Your task to perform on an android device: Clear the cart on bestbuy.com. Search for "usb-b" on bestbuy.com, select the first entry, add it to the cart, then select checkout. Image 0: 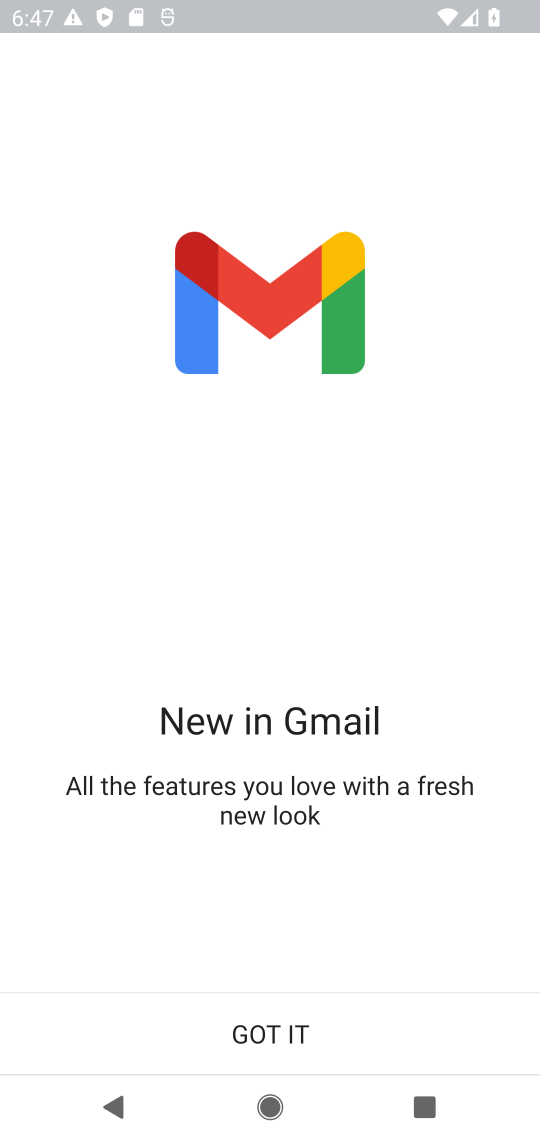
Step 0: press home button
Your task to perform on an android device: Clear the cart on bestbuy.com. Search for "usb-b" on bestbuy.com, select the first entry, add it to the cart, then select checkout. Image 1: 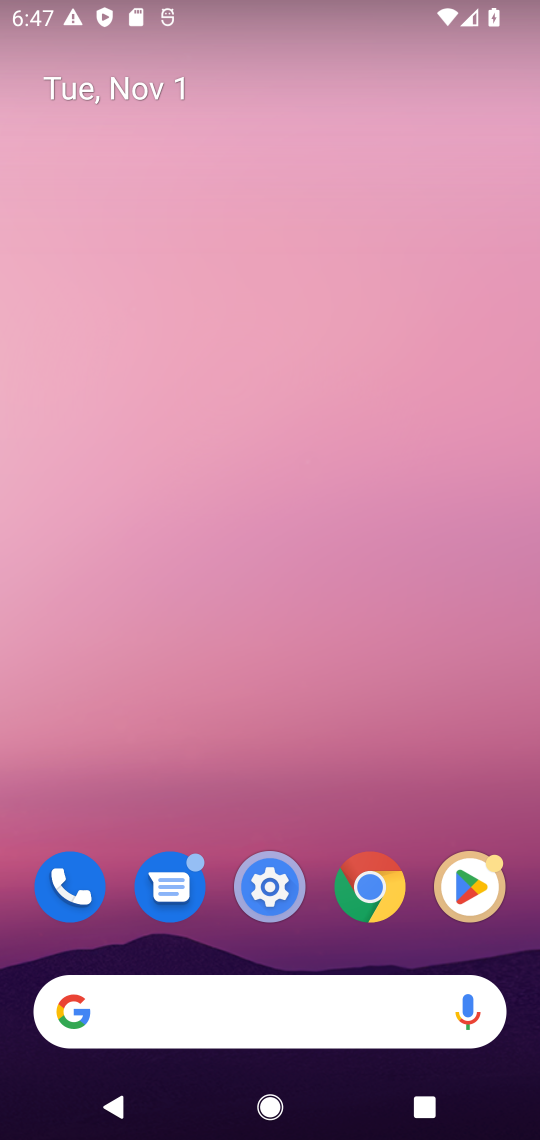
Step 1: drag from (260, 1002) to (255, 237)
Your task to perform on an android device: Clear the cart on bestbuy.com. Search for "usb-b" on bestbuy.com, select the first entry, add it to the cart, then select checkout. Image 2: 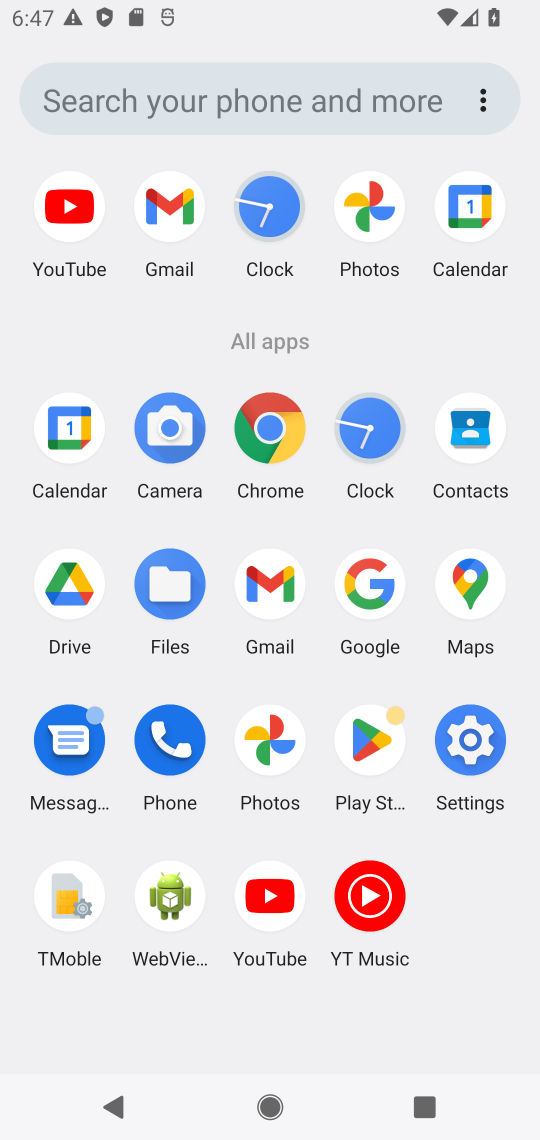
Step 2: click (367, 570)
Your task to perform on an android device: Clear the cart on bestbuy.com. Search for "usb-b" on bestbuy.com, select the first entry, add it to the cart, then select checkout. Image 3: 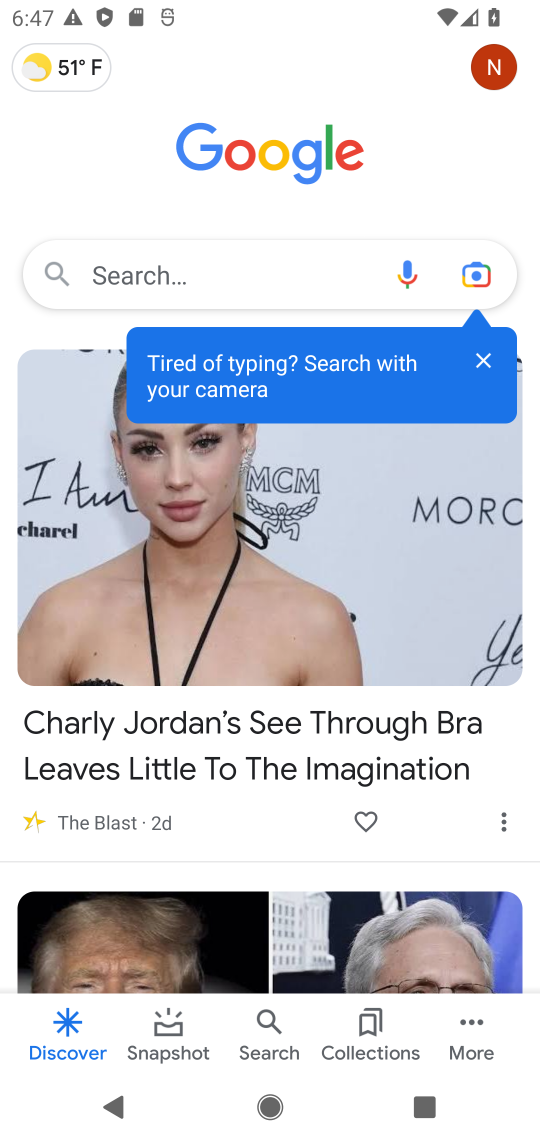
Step 3: click (223, 273)
Your task to perform on an android device: Clear the cart on bestbuy.com. Search for "usb-b" on bestbuy.com, select the first entry, add it to the cart, then select checkout. Image 4: 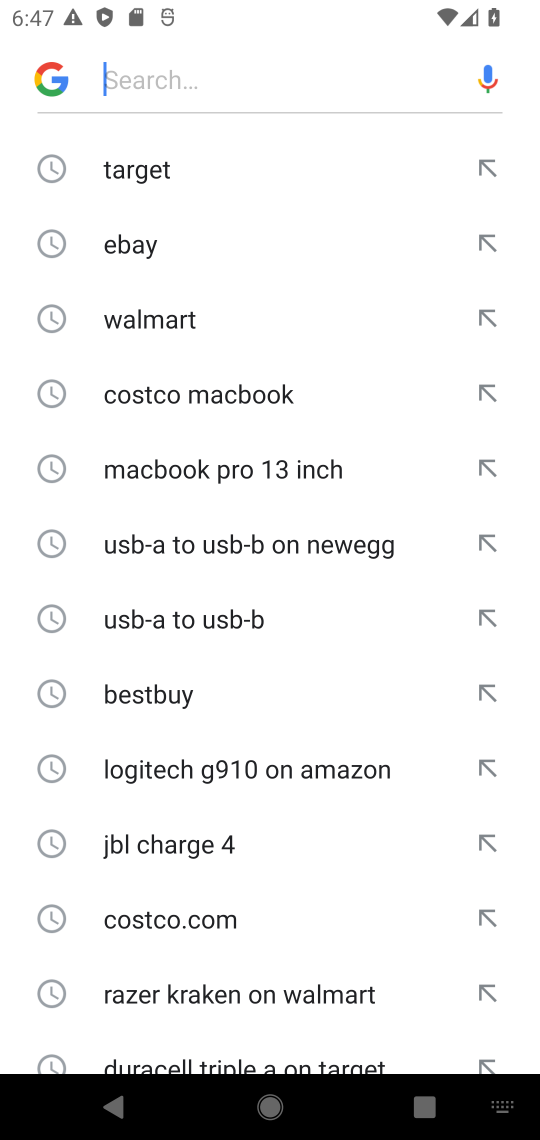
Step 4: type "bestbuy "
Your task to perform on an android device: Clear the cart on bestbuy.com. Search for "usb-b" on bestbuy.com, select the first entry, add it to the cart, then select checkout. Image 5: 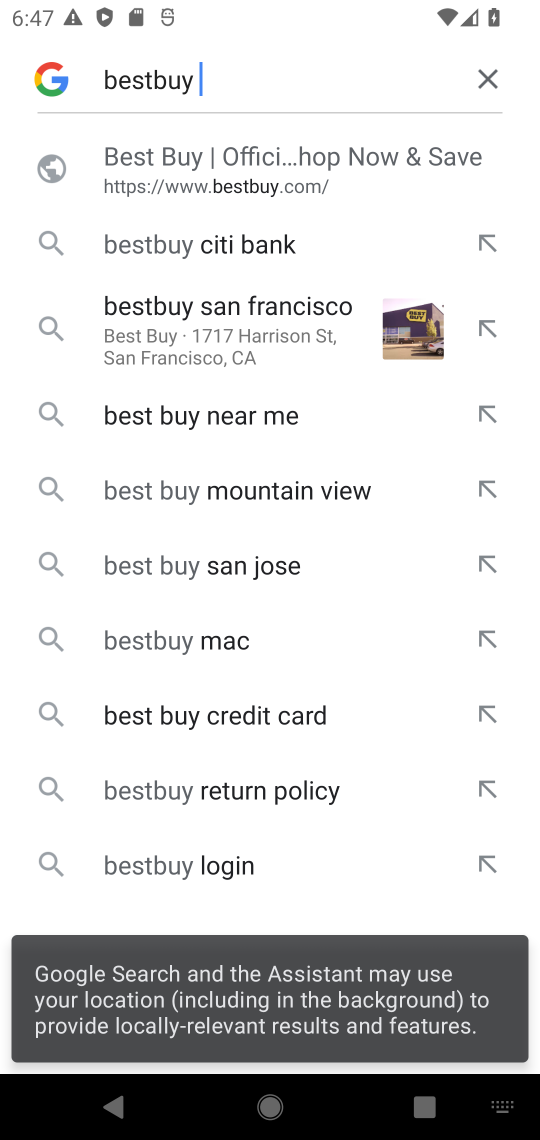
Step 5: click (215, 156)
Your task to perform on an android device: Clear the cart on bestbuy.com. Search for "usb-b" on bestbuy.com, select the first entry, add it to the cart, then select checkout. Image 6: 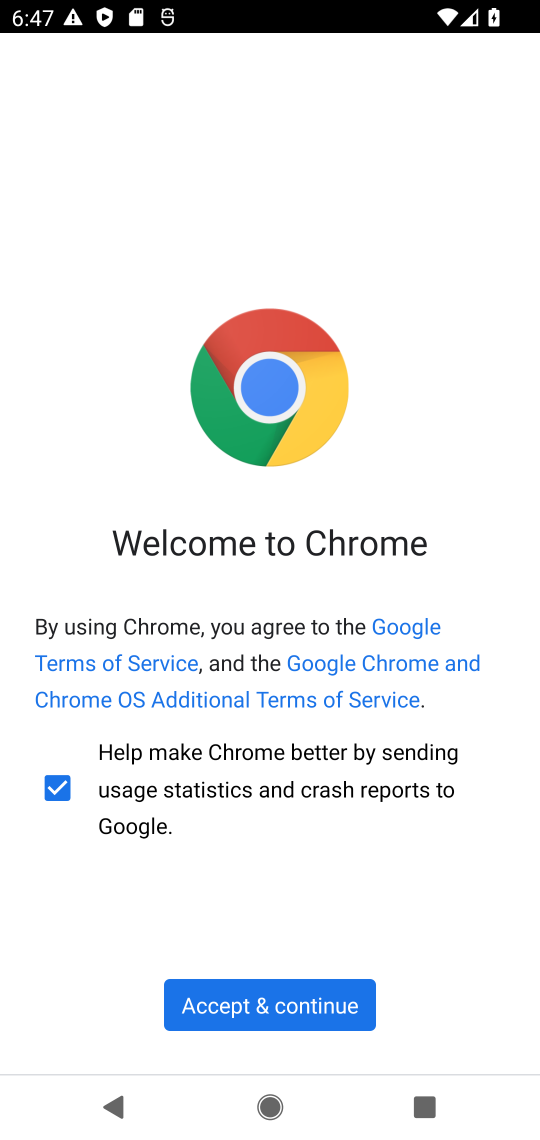
Step 6: click (301, 1009)
Your task to perform on an android device: Clear the cart on bestbuy.com. Search for "usb-b" on bestbuy.com, select the first entry, add it to the cart, then select checkout. Image 7: 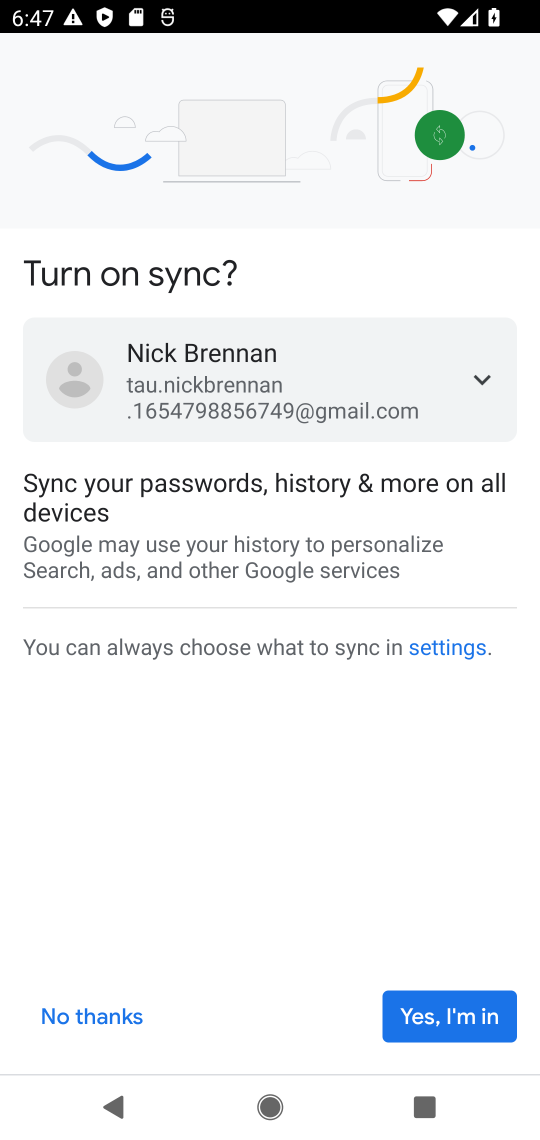
Step 7: click (96, 1026)
Your task to perform on an android device: Clear the cart on bestbuy.com. Search for "usb-b" on bestbuy.com, select the first entry, add it to the cart, then select checkout. Image 8: 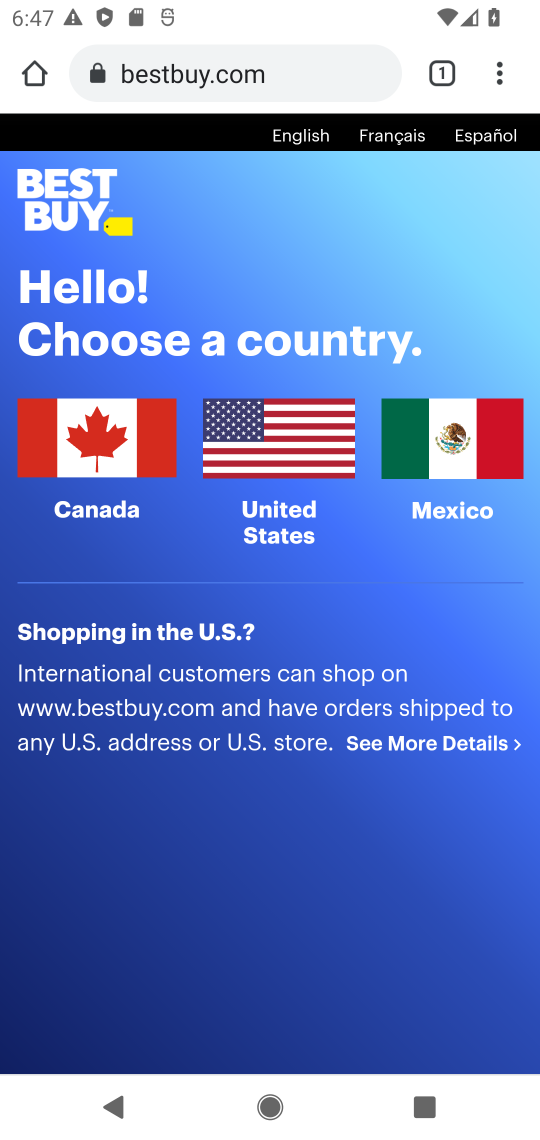
Step 8: click (287, 407)
Your task to perform on an android device: Clear the cart on bestbuy.com. Search for "usb-b" on bestbuy.com, select the first entry, add it to the cart, then select checkout. Image 9: 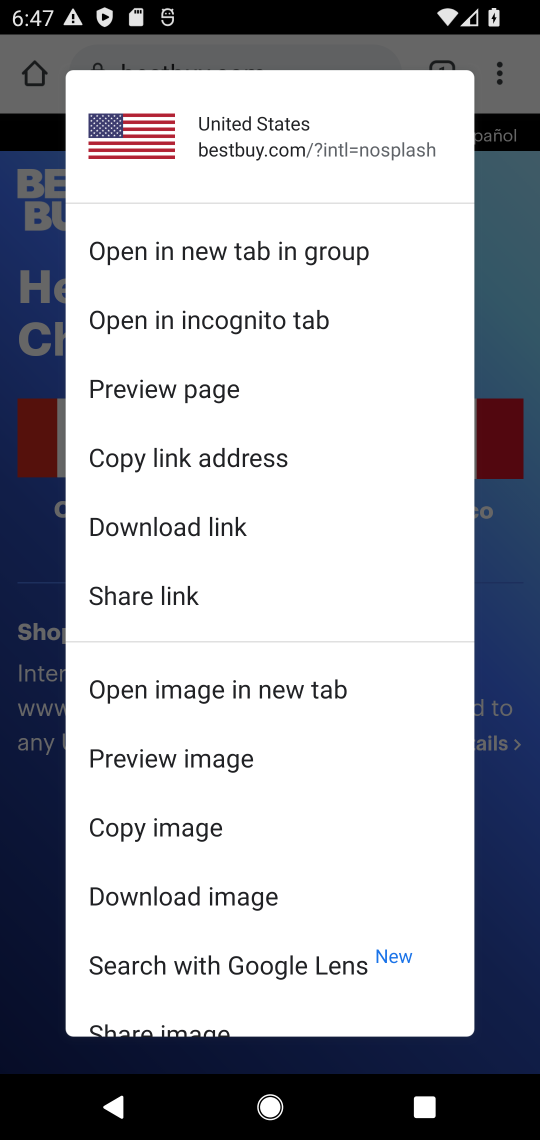
Step 9: click (503, 385)
Your task to perform on an android device: Clear the cart on bestbuy.com. Search for "usb-b" on bestbuy.com, select the first entry, add it to the cart, then select checkout. Image 10: 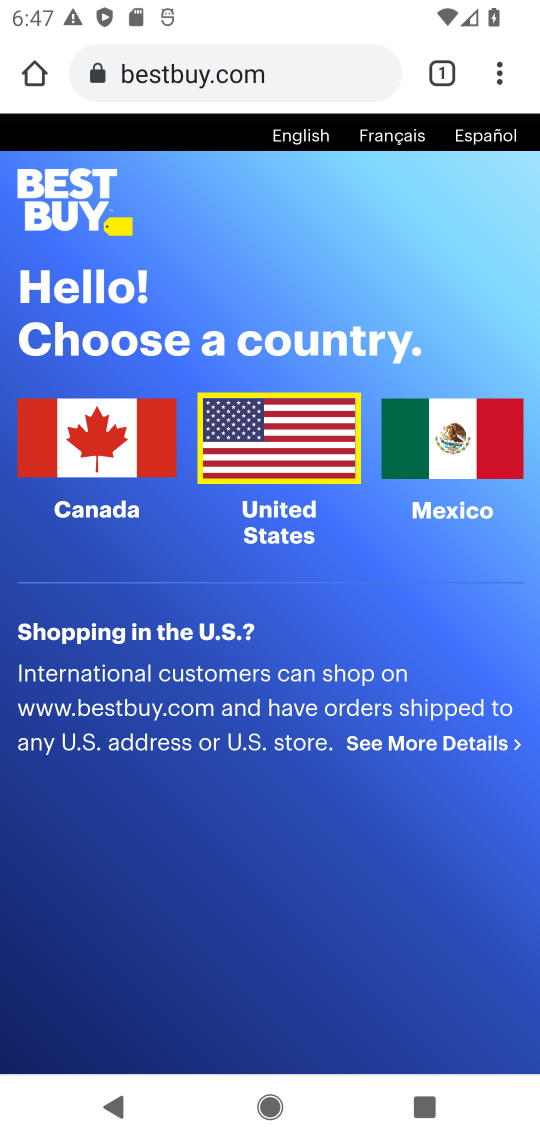
Step 10: click (272, 467)
Your task to perform on an android device: Clear the cart on bestbuy.com. Search for "usb-b" on bestbuy.com, select the first entry, add it to the cart, then select checkout. Image 11: 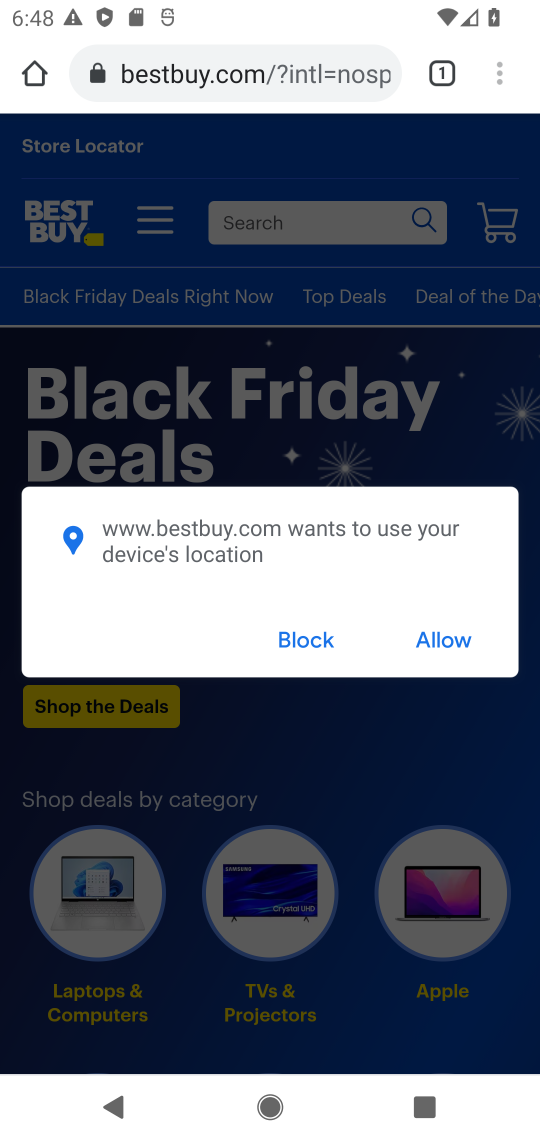
Step 11: click (431, 618)
Your task to perform on an android device: Clear the cart on bestbuy.com. Search for "usb-b" on bestbuy.com, select the first entry, add it to the cart, then select checkout. Image 12: 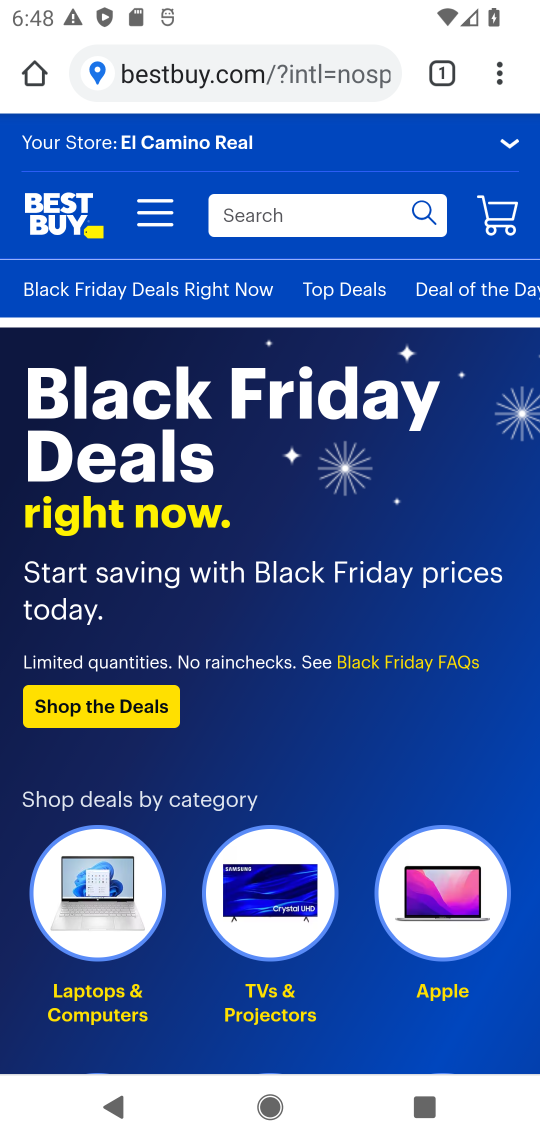
Step 12: click (254, 211)
Your task to perform on an android device: Clear the cart on bestbuy.com. Search for "usb-b" on bestbuy.com, select the first entry, add it to the cart, then select checkout. Image 13: 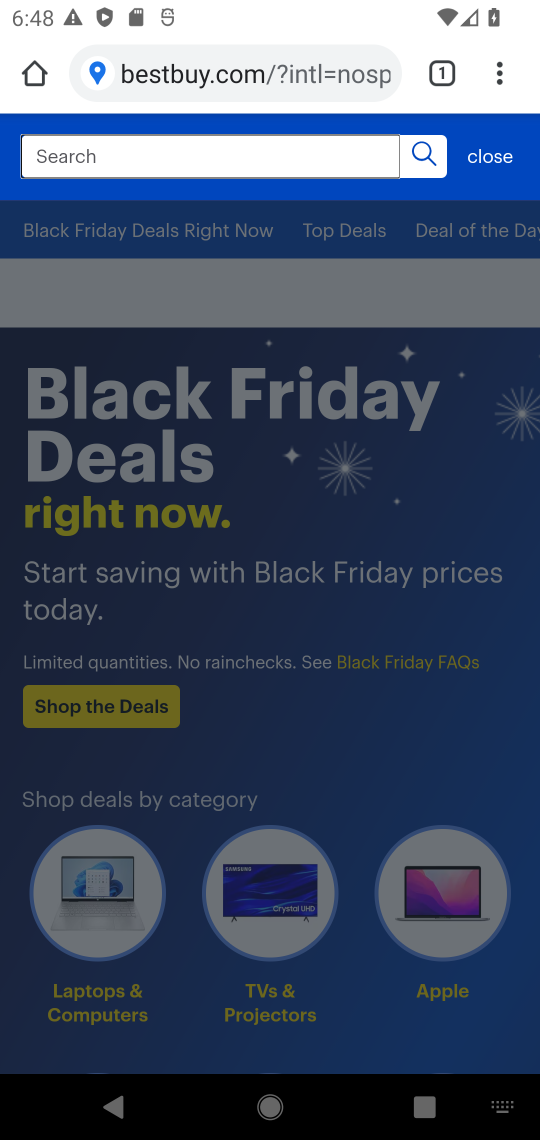
Step 13: type ""usb-b" "
Your task to perform on an android device: Clear the cart on bestbuy.com. Search for "usb-b" on bestbuy.com, select the first entry, add it to the cart, then select checkout. Image 14: 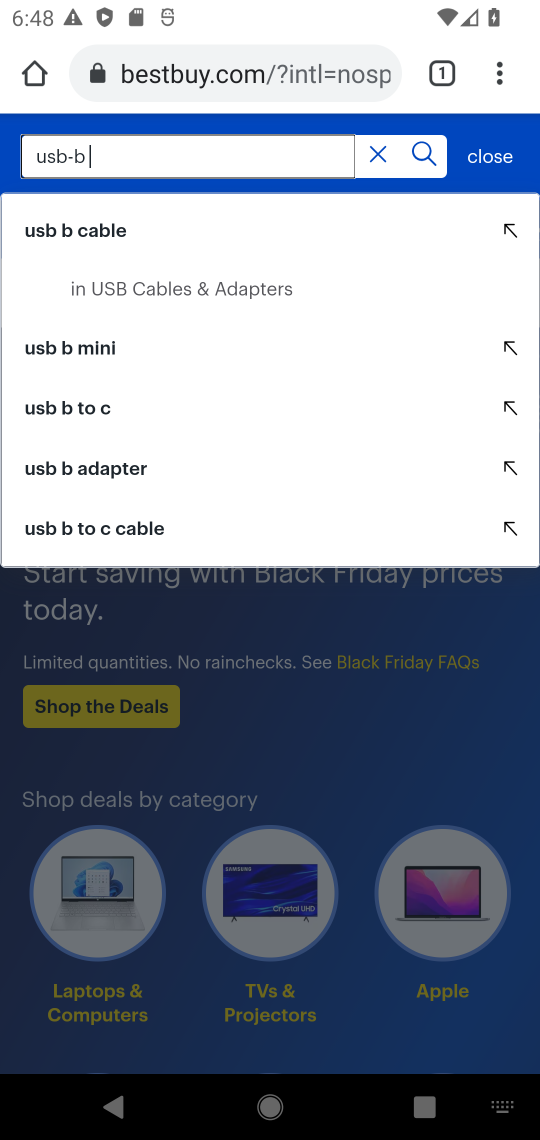
Step 14: click (87, 229)
Your task to perform on an android device: Clear the cart on bestbuy.com. Search for "usb-b" on bestbuy.com, select the first entry, add it to the cart, then select checkout. Image 15: 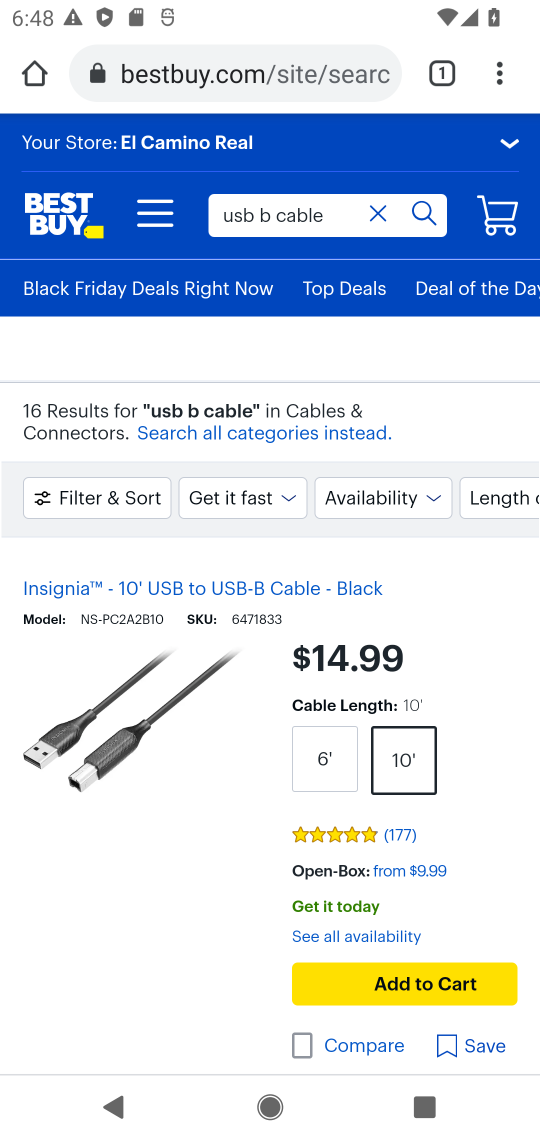
Step 15: click (422, 980)
Your task to perform on an android device: Clear the cart on bestbuy.com. Search for "usb-b" on bestbuy.com, select the first entry, add it to the cart, then select checkout. Image 16: 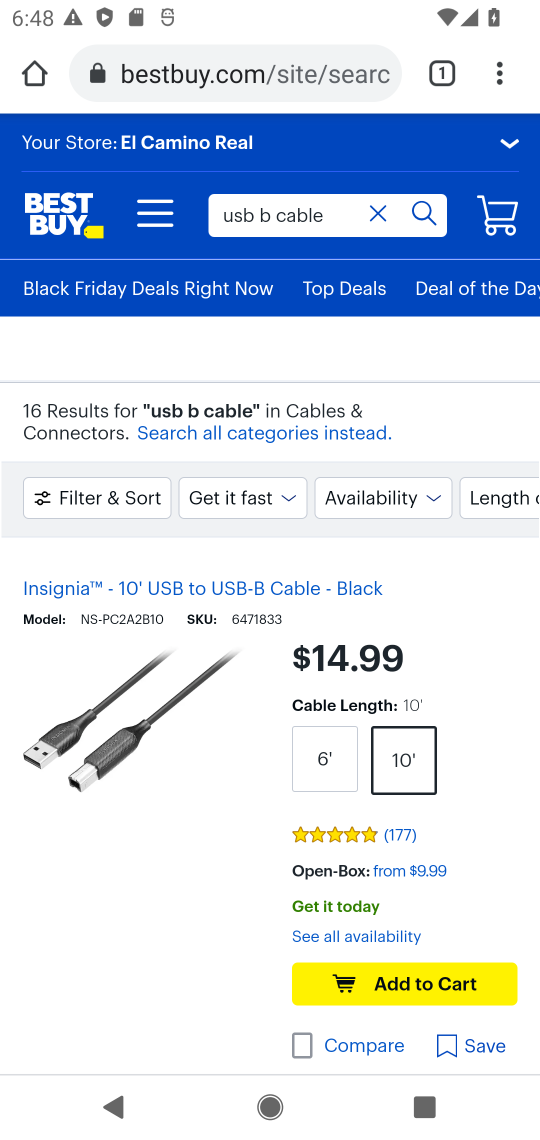
Step 16: task complete